Your task to perform on an android device: Open Android settings Image 0: 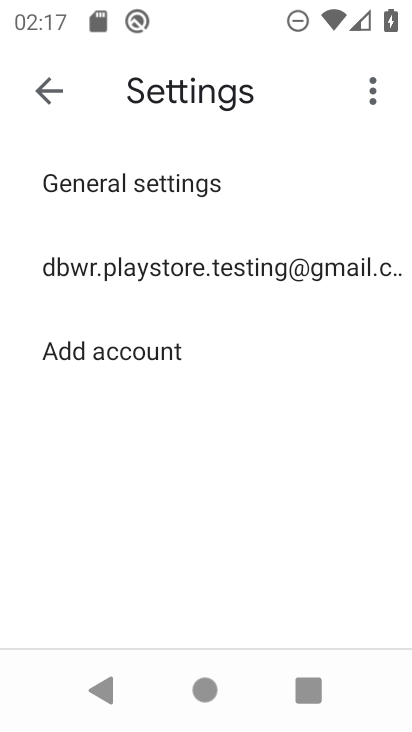
Step 0: press home button
Your task to perform on an android device: Open Android settings Image 1: 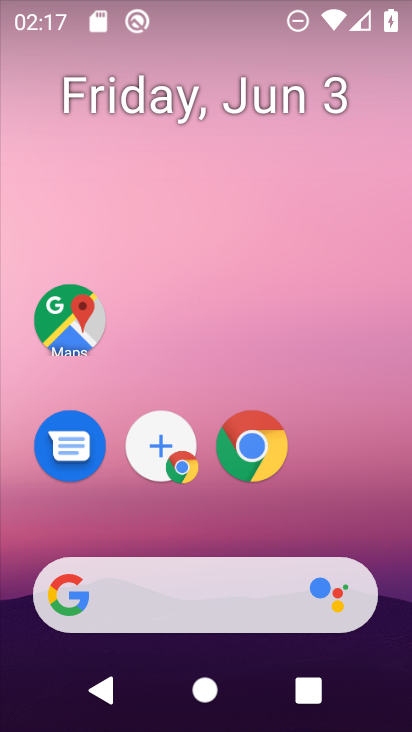
Step 1: drag from (142, 685) to (224, 5)
Your task to perform on an android device: Open Android settings Image 2: 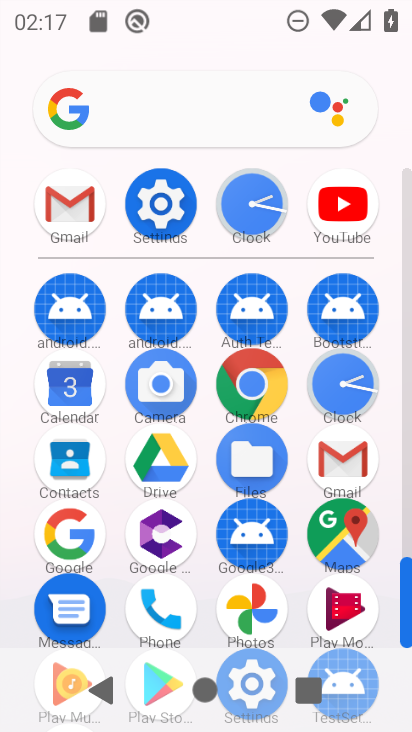
Step 2: click (157, 213)
Your task to perform on an android device: Open Android settings Image 3: 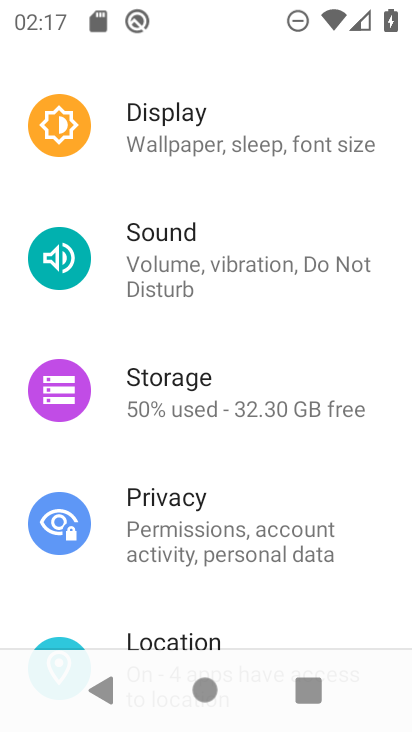
Step 3: drag from (250, 519) to (288, 72)
Your task to perform on an android device: Open Android settings Image 4: 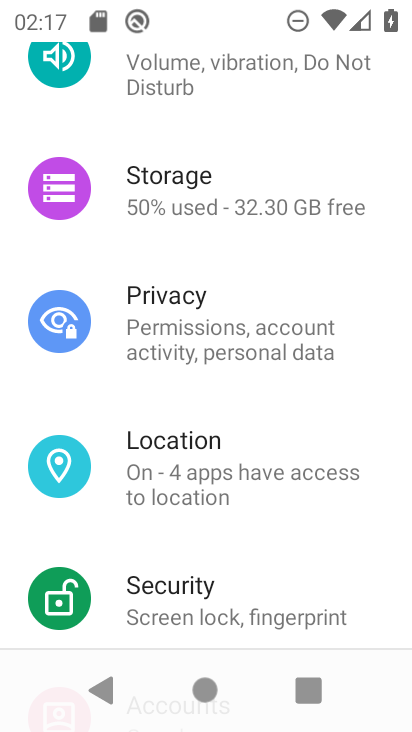
Step 4: drag from (269, 528) to (265, 12)
Your task to perform on an android device: Open Android settings Image 5: 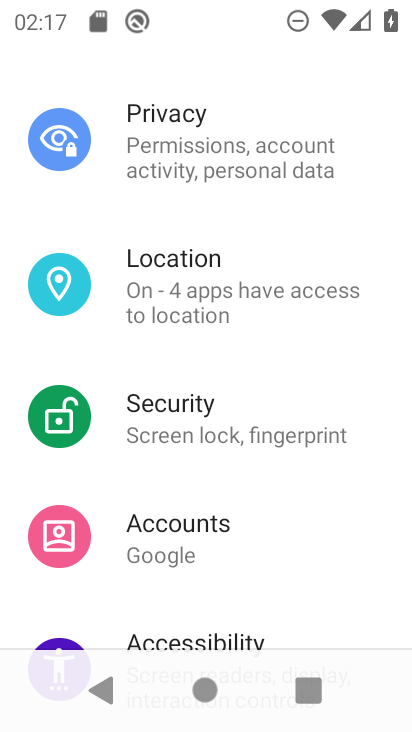
Step 5: drag from (208, 567) to (217, 40)
Your task to perform on an android device: Open Android settings Image 6: 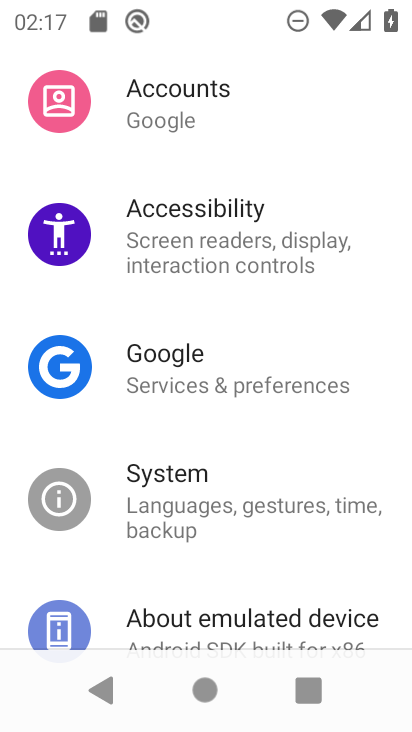
Step 6: drag from (264, 551) to (334, 17)
Your task to perform on an android device: Open Android settings Image 7: 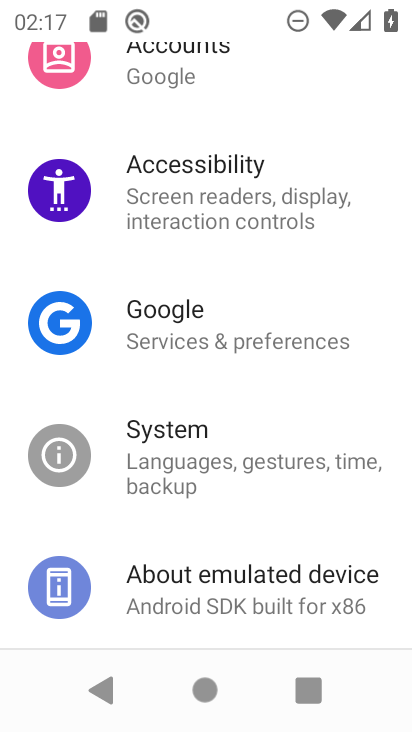
Step 7: drag from (303, 457) to (303, 103)
Your task to perform on an android device: Open Android settings Image 8: 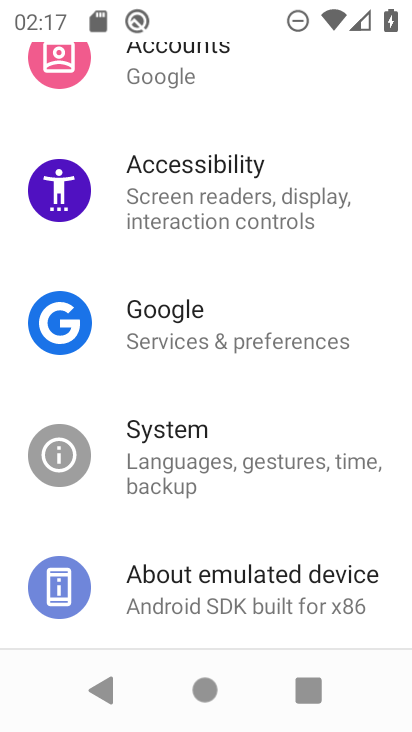
Step 8: click (208, 611)
Your task to perform on an android device: Open Android settings Image 9: 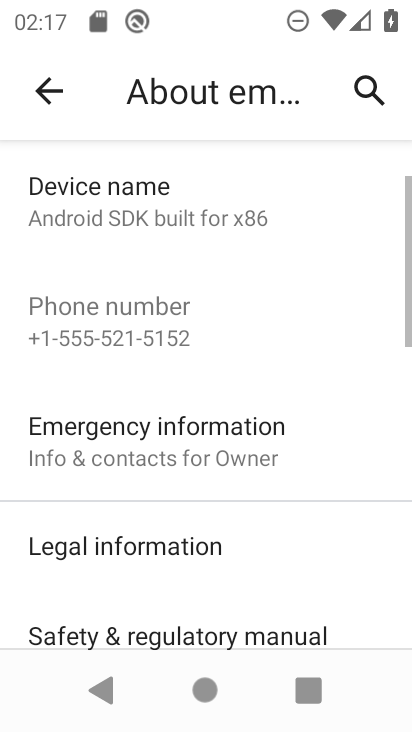
Step 9: task complete